Your task to perform on an android device: turn on bluetooth scan Image 0: 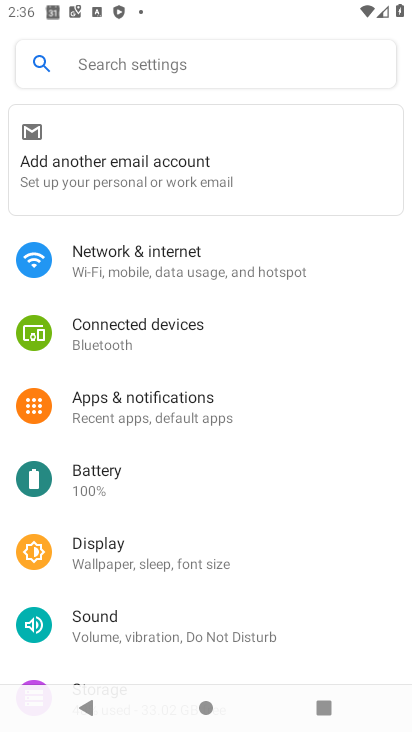
Step 0: drag from (214, 579) to (204, 259)
Your task to perform on an android device: turn on bluetooth scan Image 1: 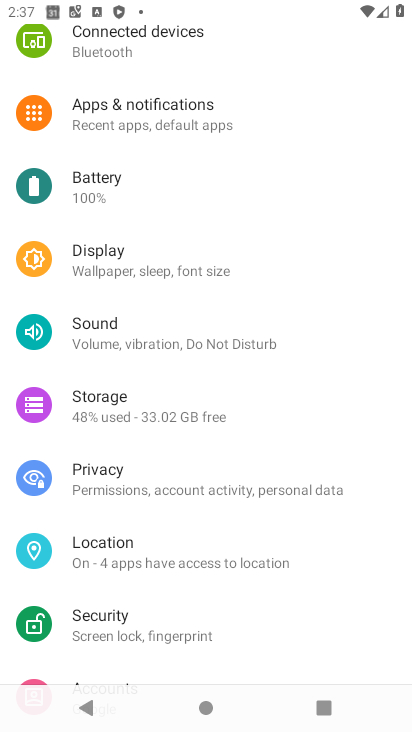
Step 1: drag from (175, 660) to (197, 197)
Your task to perform on an android device: turn on bluetooth scan Image 2: 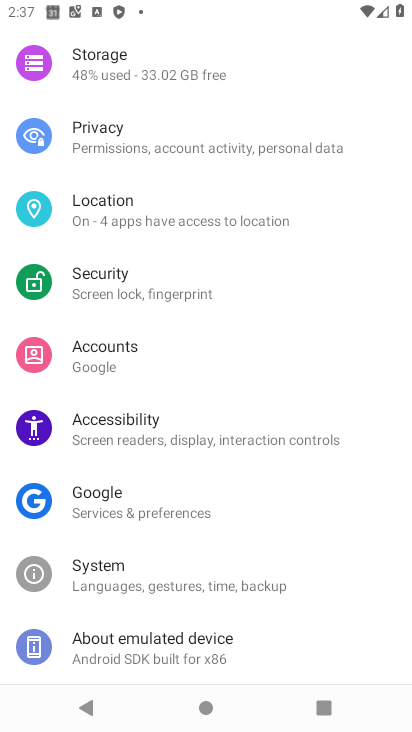
Step 2: drag from (171, 641) to (191, 370)
Your task to perform on an android device: turn on bluetooth scan Image 3: 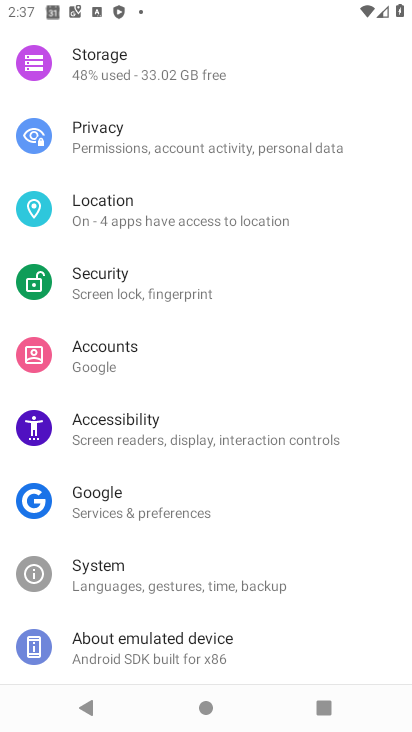
Step 3: click (200, 650)
Your task to perform on an android device: turn on bluetooth scan Image 4: 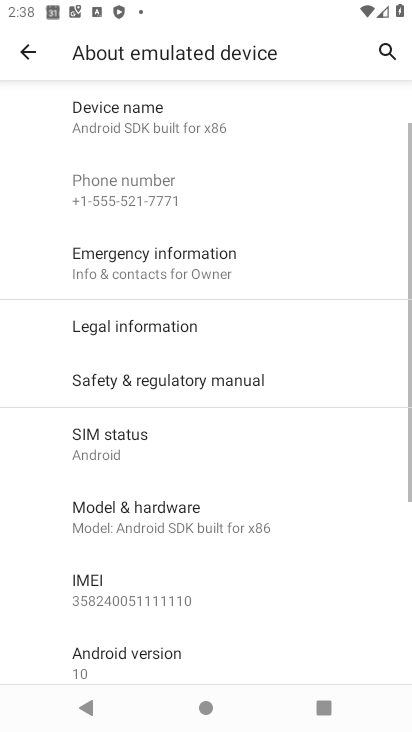
Step 4: drag from (235, 296) to (222, 588)
Your task to perform on an android device: turn on bluetooth scan Image 5: 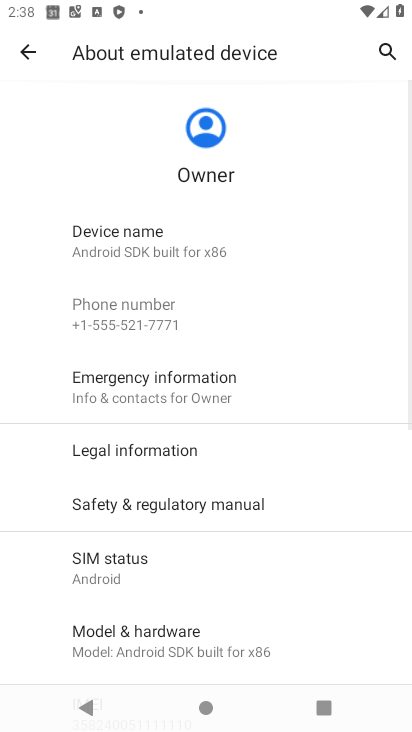
Step 5: press back button
Your task to perform on an android device: turn on bluetooth scan Image 6: 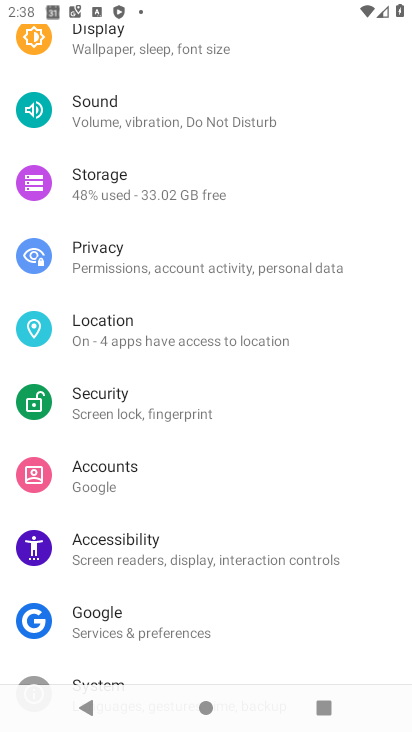
Step 6: drag from (241, 223) to (234, 562)
Your task to perform on an android device: turn on bluetooth scan Image 7: 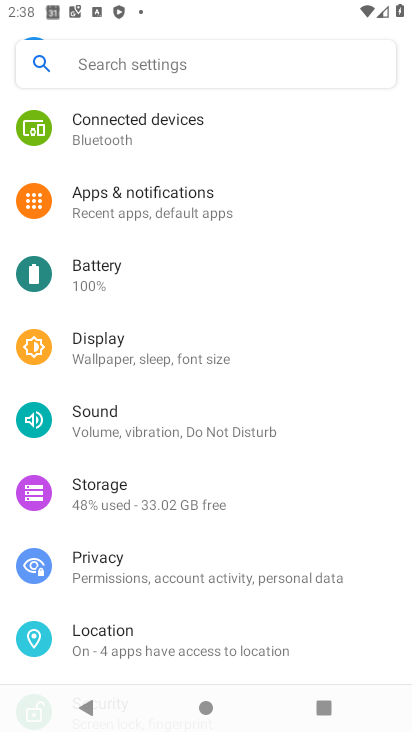
Step 7: click (159, 628)
Your task to perform on an android device: turn on bluetooth scan Image 8: 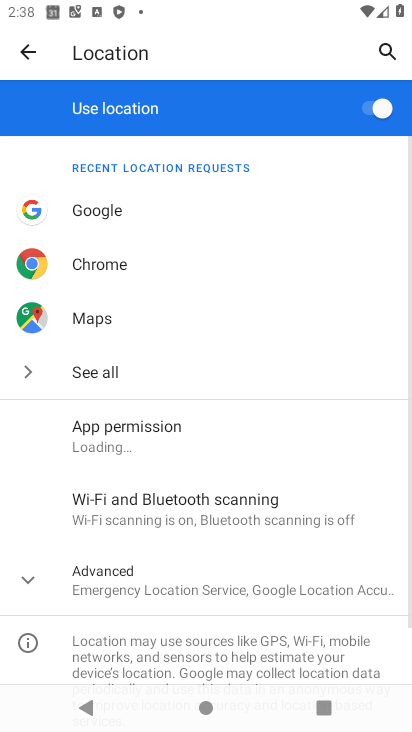
Step 8: click (315, 523)
Your task to perform on an android device: turn on bluetooth scan Image 9: 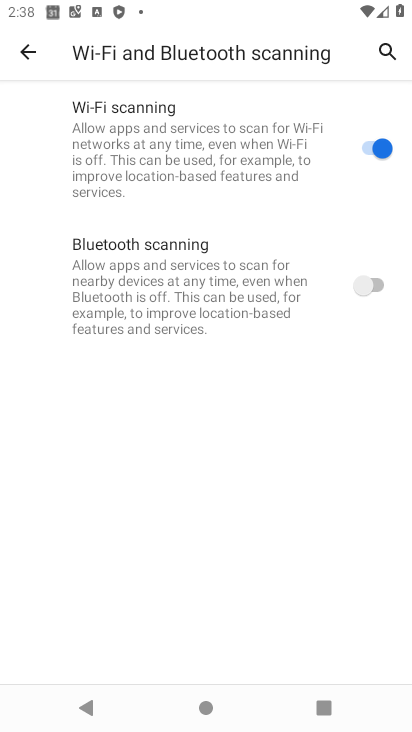
Step 9: click (377, 284)
Your task to perform on an android device: turn on bluetooth scan Image 10: 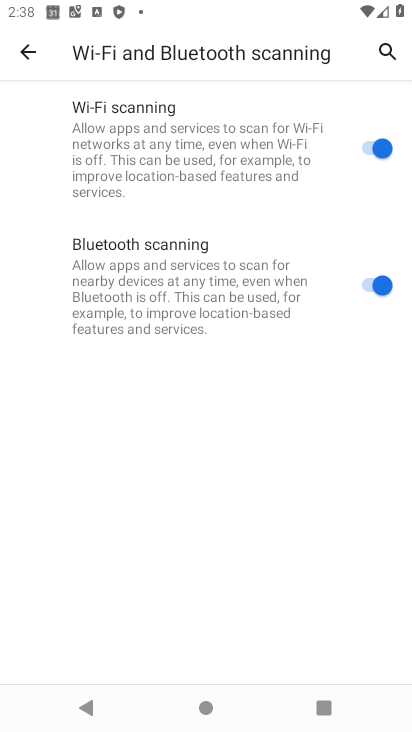
Step 10: task complete